Your task to perform on an android device: Open Chrome and go to settings Image 0: 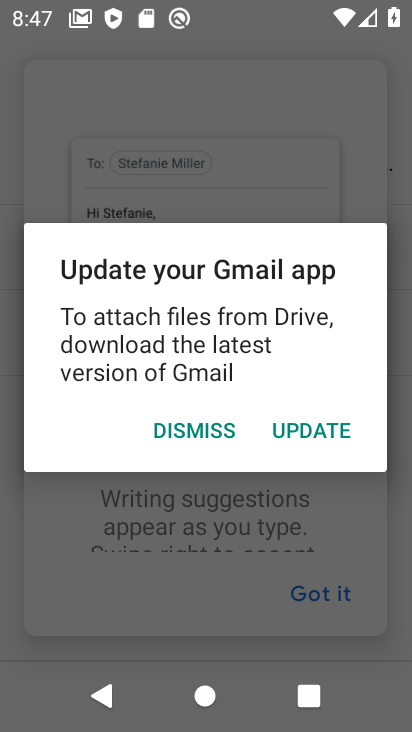
Step 0: press home button
Your task to perform on an android device: Open Chrome and go to settings Image 1: 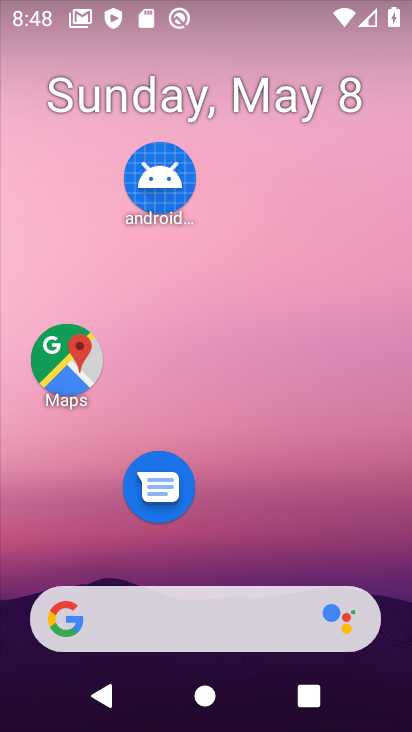
Step 1: drag from (323, 567) to (323, 26)
Your task to perform on an android device: Open Chrome and go to settings Image 2: 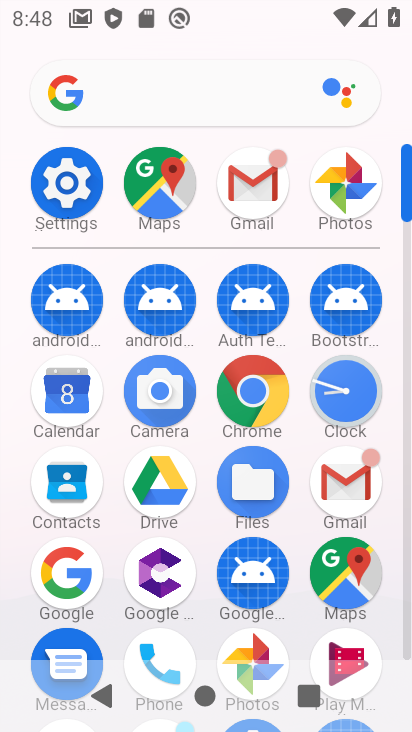
Step 2: click (245, 407)
Your task to perform on an android device: Open Chrome and go to settings Image 3: 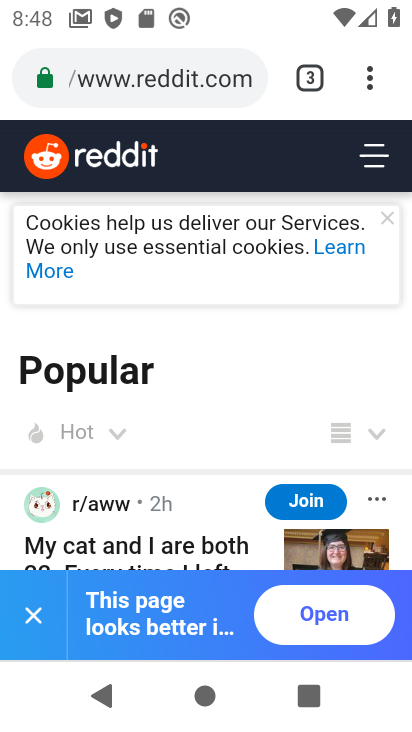
Step 3: click (370, 82)
Your task to perform on an android device: Open Chrome and go to settings Image 4: 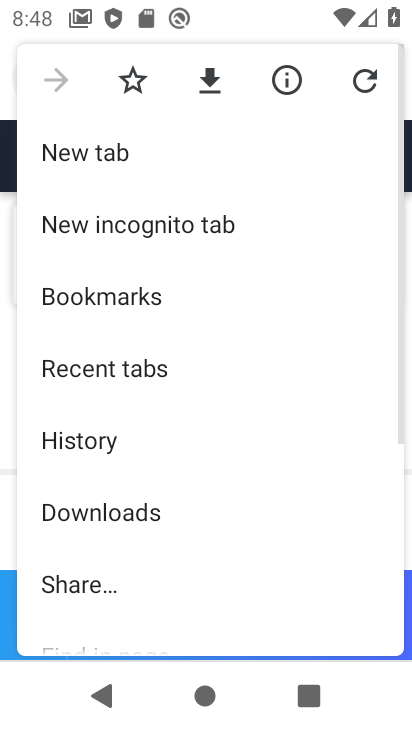
Step 4: drag from (159, 546) to (205, 310)
Your task to perform on an android device: Open Chrome and go to settings Image 5: 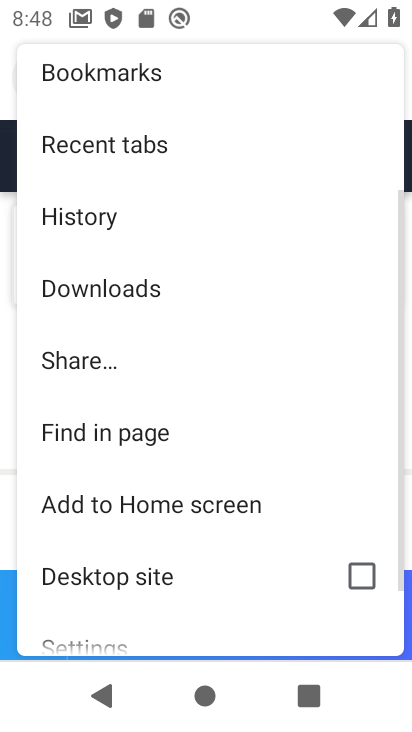
Step 5: drag from (152, 596) to (229, 288)
Your task to perform on an android device: Open Chrome and go to settings Image 6: 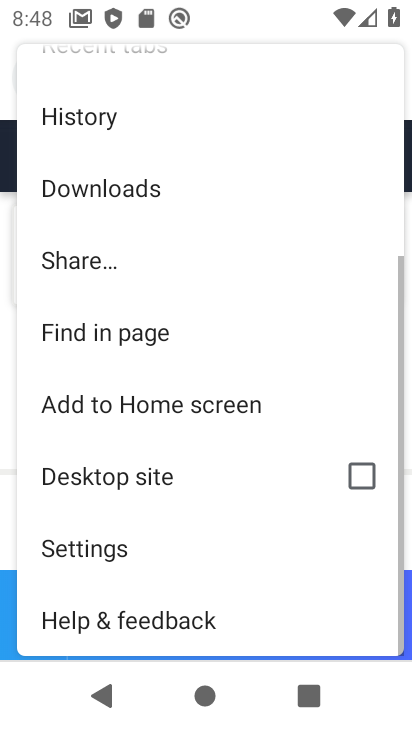
Step 6: click (105, 544)
Your task to perform on an android device: Open Chrome and go to settings Image 7: 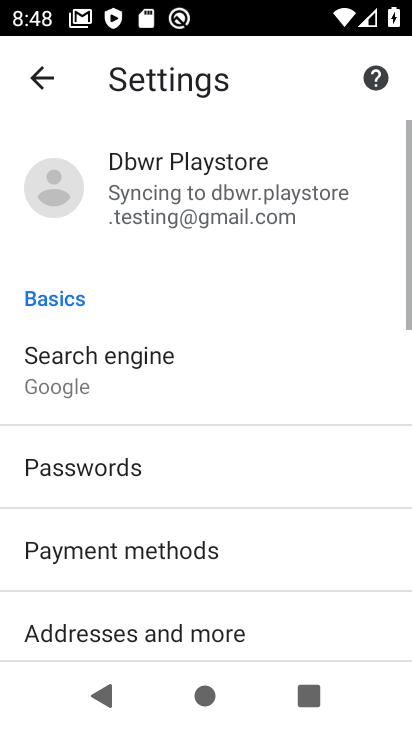
Step 7: task complete